Your task to perform on an android device: turn notification dots off Image 0: 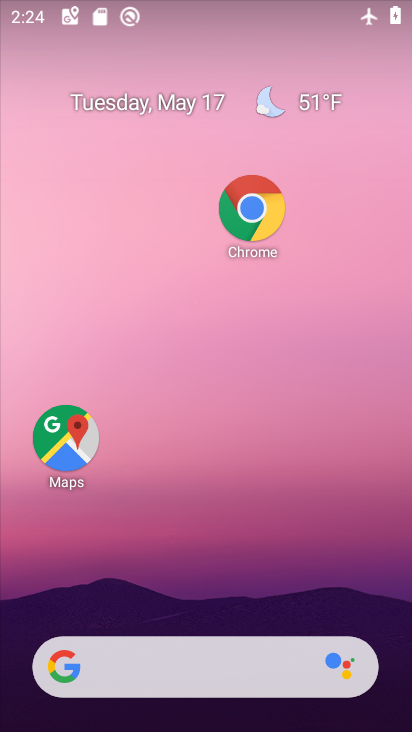
Step 0: drag from (227, 612) to (138, 43)
Your task to perform on an android device: turn notification dots off Image 1: 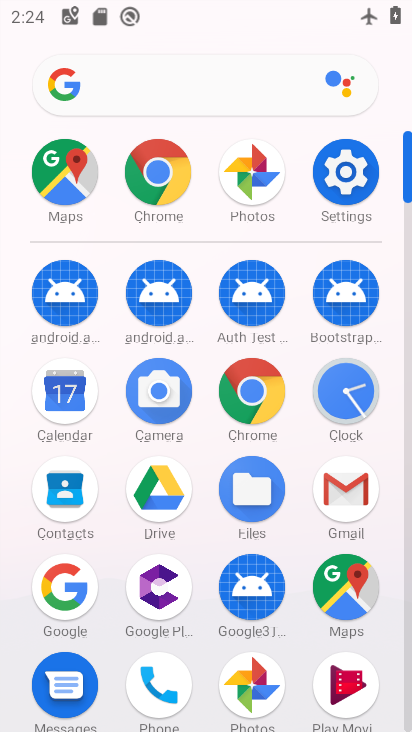
Step 1: click (322, 171)
Your task to perform on an android device: turn notification dots off Image 2: 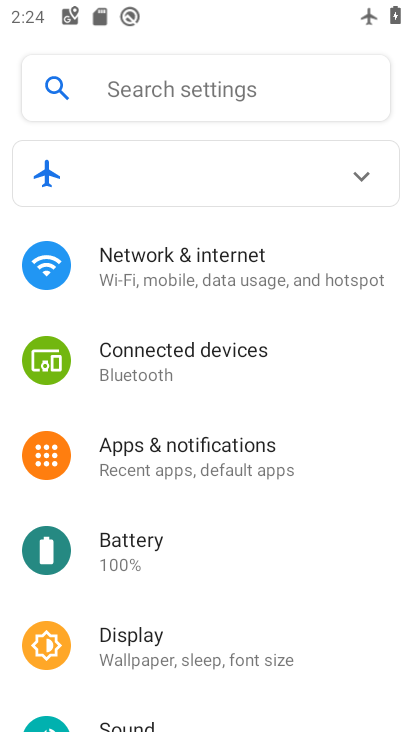
Step 2: click (223, 442)
Your task to perform on an android device: turn notification dots off Image 3: 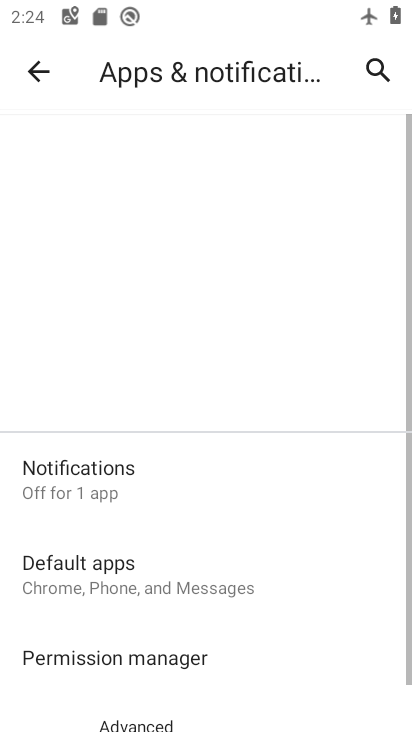
Step 3: drag from (220, 581) to (200, 291)
Your task to perform on an android device: turn notification dots off Image 4: 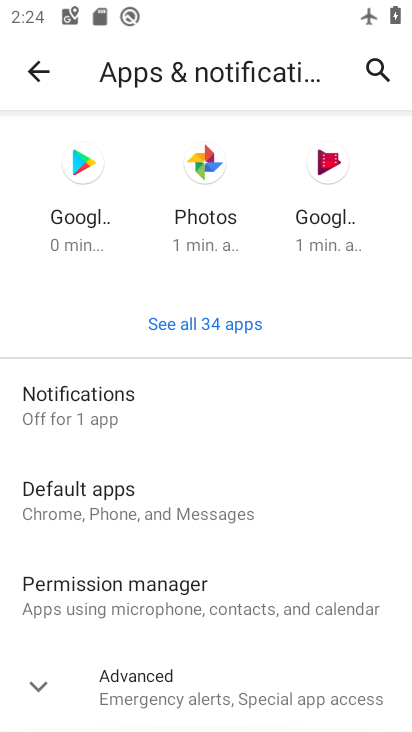
Step 4: click (85, 388)
Your task to perform on an android device: turn notification dots off Image 5: 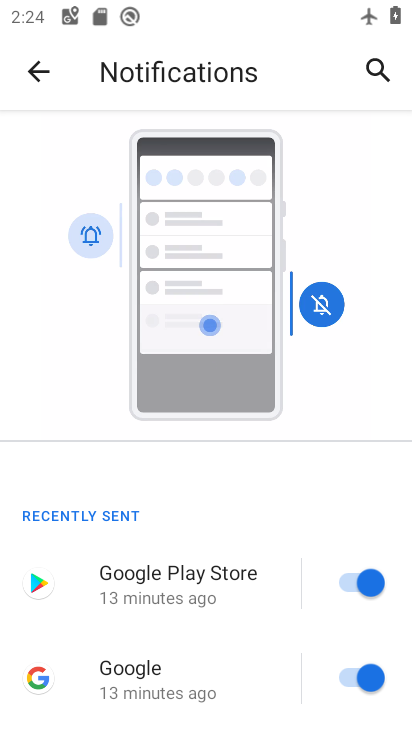
Step 5: drag from (203, 564) to (204, 21)
Your task to perform on an android device: turn notification dots off Image 6: 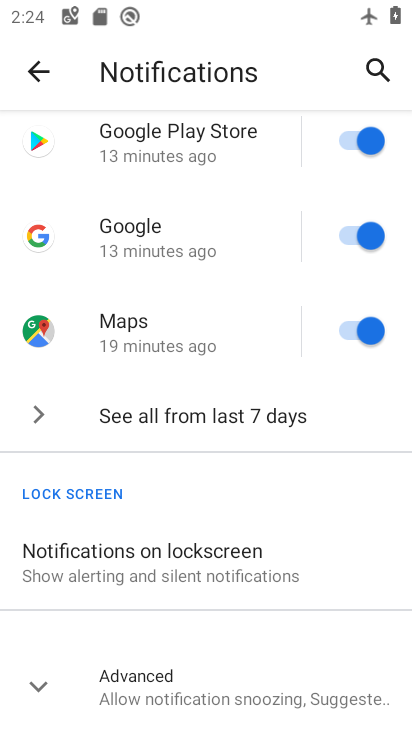
Step 6: click (246, 688)
Your task to perform on an android device: turn notification dots off Image 7: 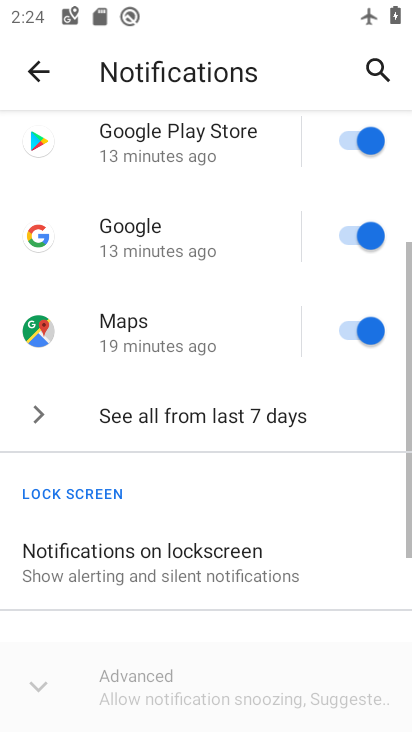
Step 7: drag from (246, 688) to (207, 110)
Your task to perform on an android device: turn notification dots off Image 8: 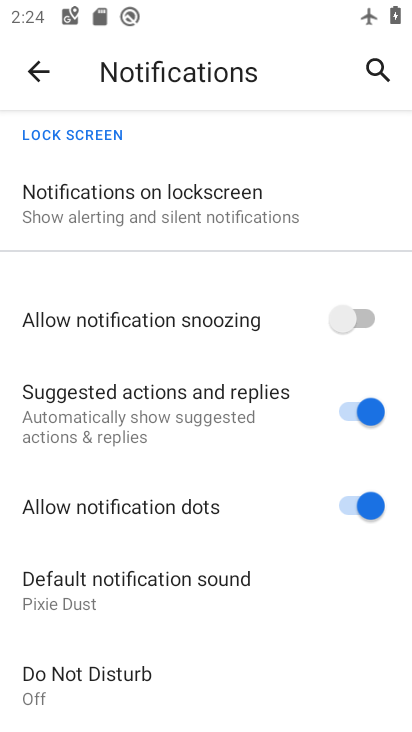
Step 8: click (369, 504)
Your task to perform on an android device: turn notification dots off Image 9: 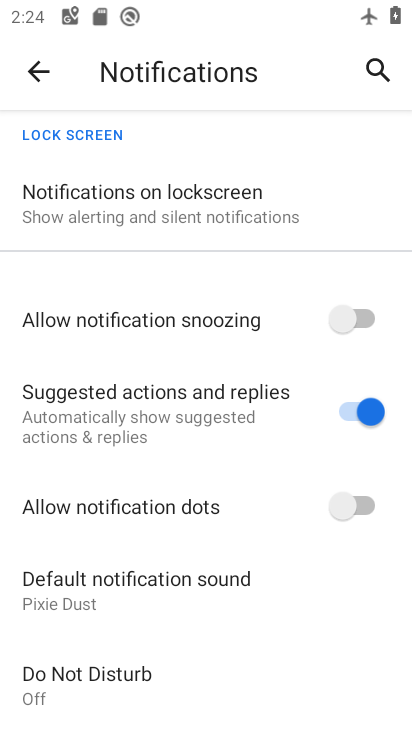
Step 9: task complete